Your task to perform on an android device: turn notification dots off Image 0: 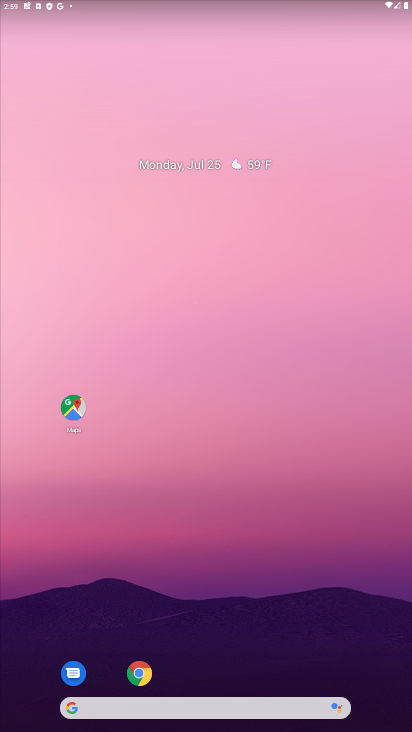
Step 0: drag from (188, 654) to (188, 98)
Your task to perform on an android device: turn notification dots off Image 1: 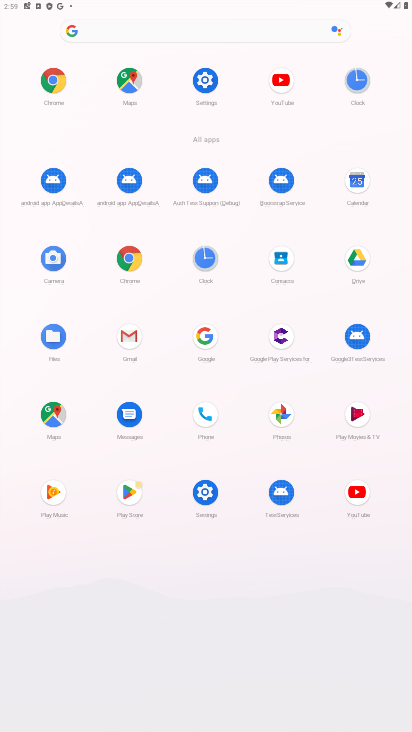
Step 1: click (202, 493)
Your task to perform on an android device: turn notification dots off Image 2: 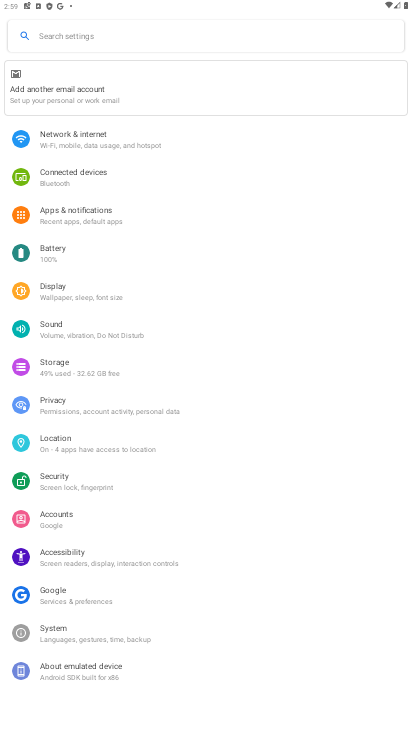
Step 2: click (99, 212)
Your task to perform on an android device: turn notification dots off Image 3: 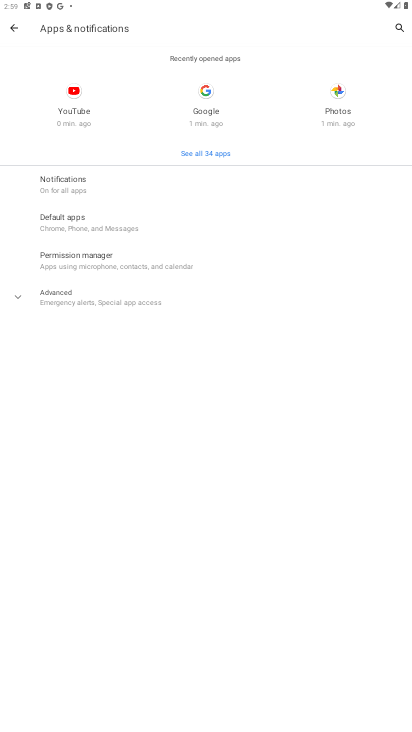
Step 3: click (116, 169)
Your task to perform on an android device: turn notification dots off Image 4: 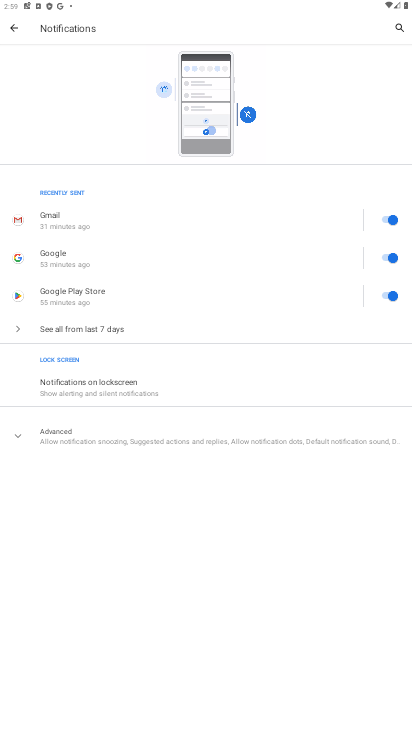
Step 4: click (82, 435)
Your task to perform on an android device: turn notification dots off Image 5: 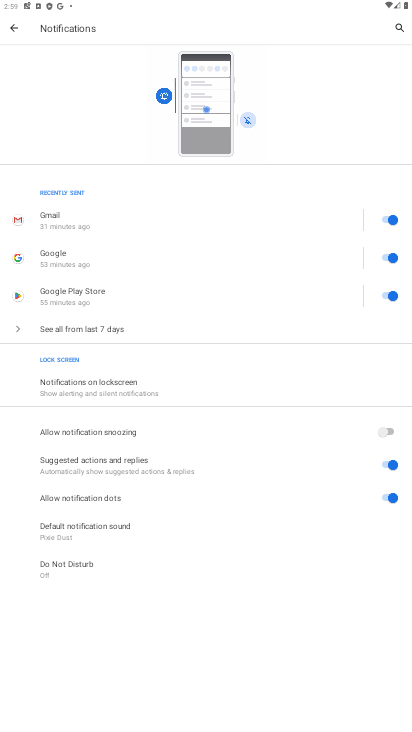
Step 5: click (390, 502)
Your task to perform on an android device: turn notification dots off Image 6: 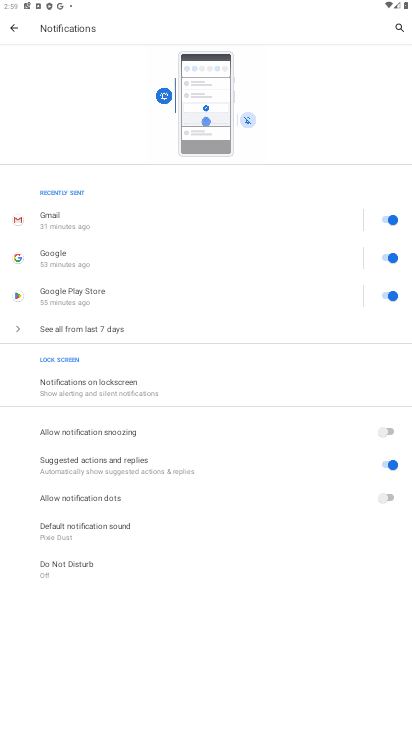
Step 6: task complete